Your task to perform on an android device: check google app version Image 0: 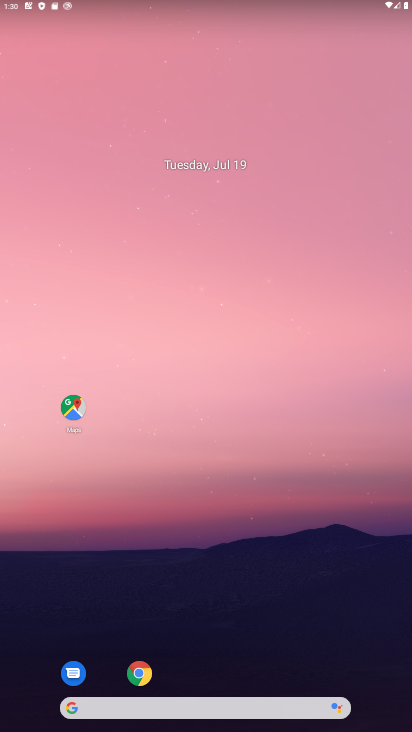
Step 0: drag from (206, 662) to (212, 318)
Your task to perform on an android device: check google app version Image 1: 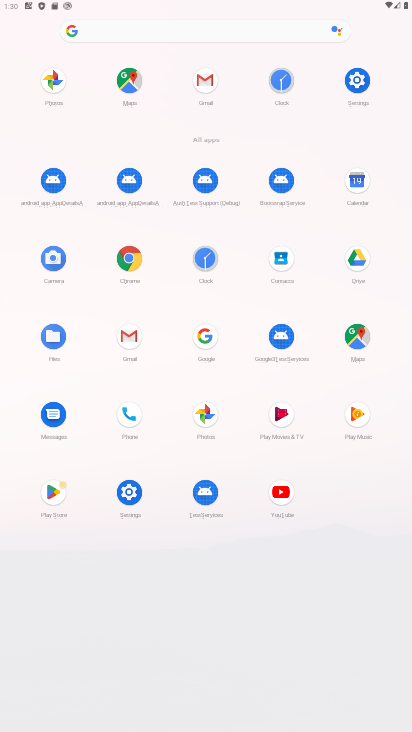
Step 1: click (135, 497)
Your task to perform on an android device: check google app version Image 2: 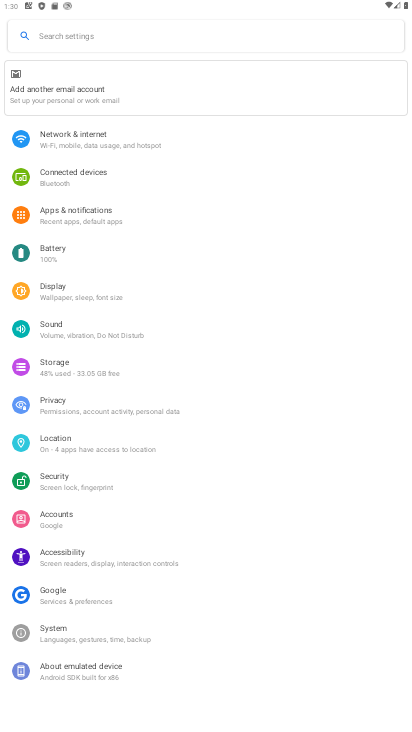
Step 2: click (114, 234)
Your task to perform on an android device: check google app version Image 3: 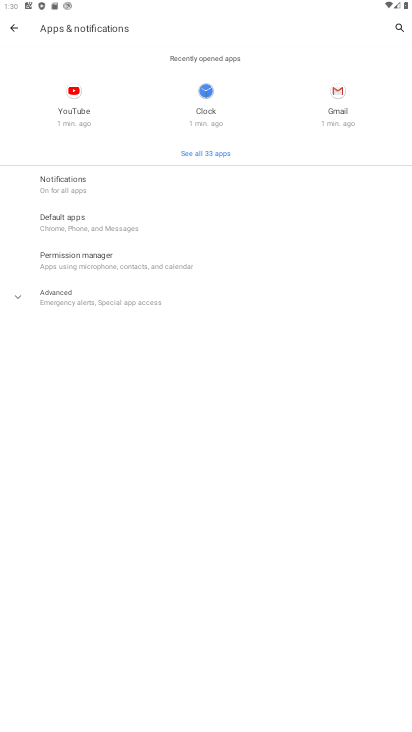
Step 3: click (216, 153)
Your task to perform on an android device: check google app version Image 4: 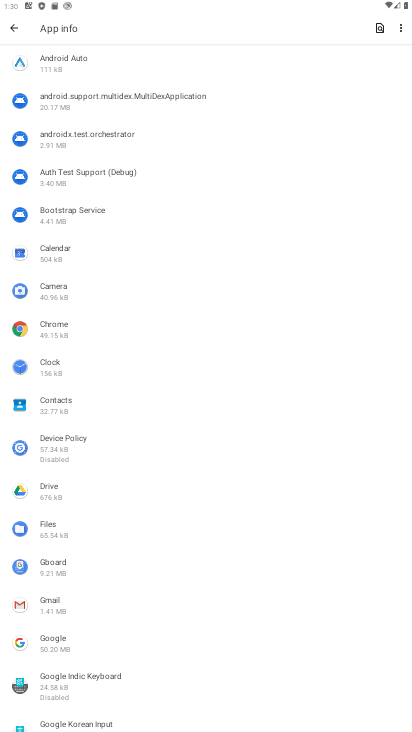
Step 4: drag from (180, 447) to (250, 232)
Your task to perform on an android device: check google app version Image 5: 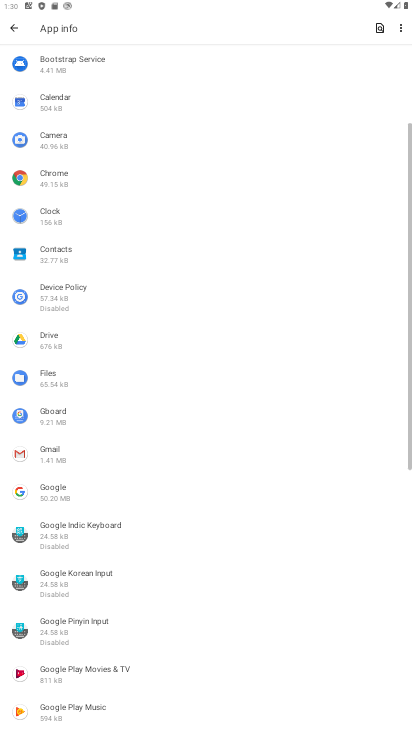
Step 5: click (74, 494)
Your task to perform on an android device: check google app version Image 6: 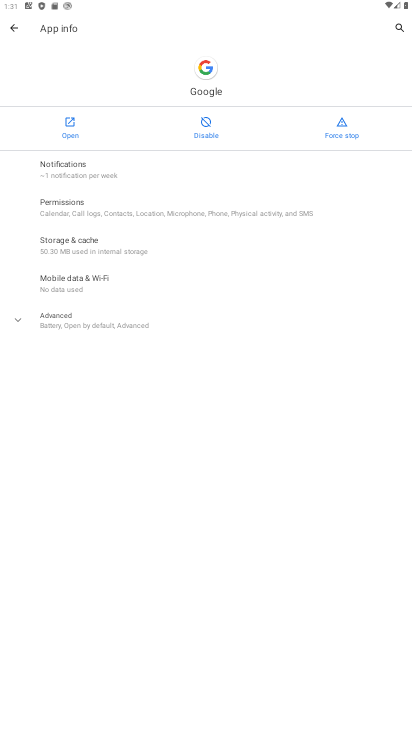
Step 6: click (137, 326)
Your task to perform on an android device: check google app version Image 7: 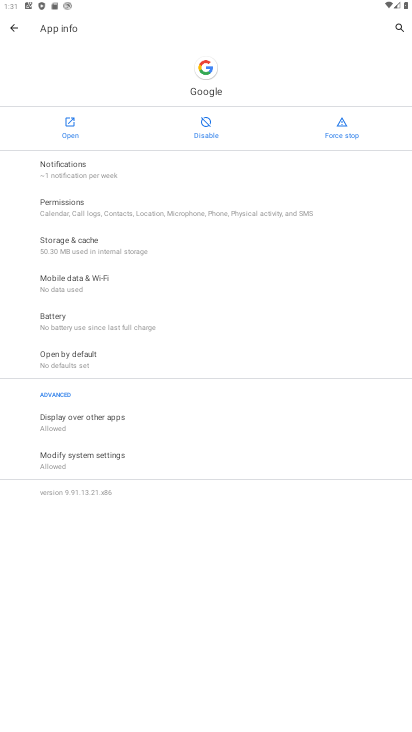
Step 7: task complete